Your task to perform on an android device: turn on bluetooth scan Image 0: 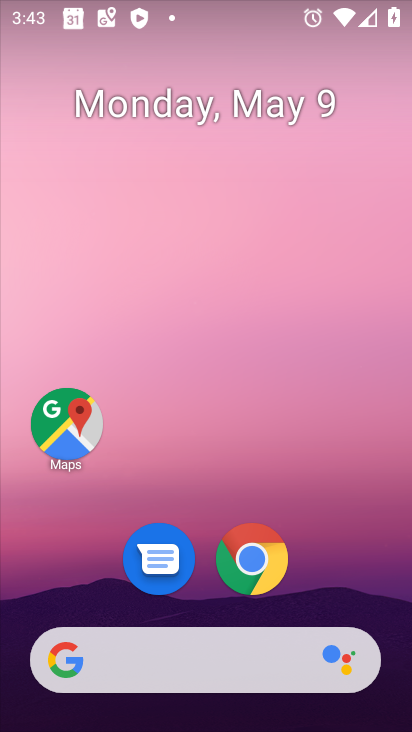
Step 0: drag from (209, 726) to (211, 151)
Your task to perform on an android device: turn on bluetooth scan Image 1: 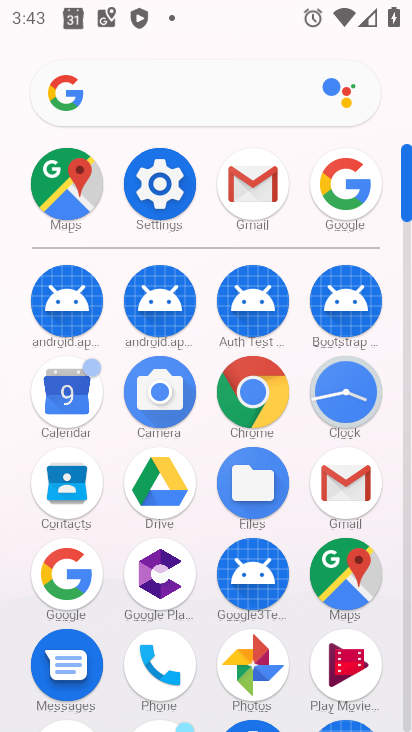
Step 1: click (163, 181)
Your task to perform on an android device: turn on bluetooth scan Image 2: 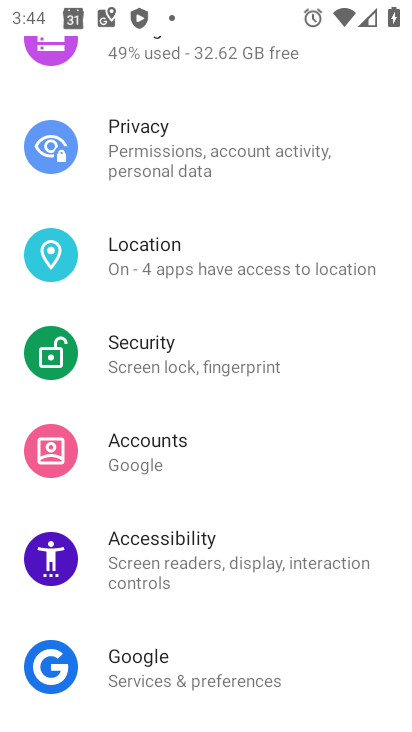
Step 2: click (179, 263)
Your task to perform on an android device: turn on bluetooth scan Image 3: 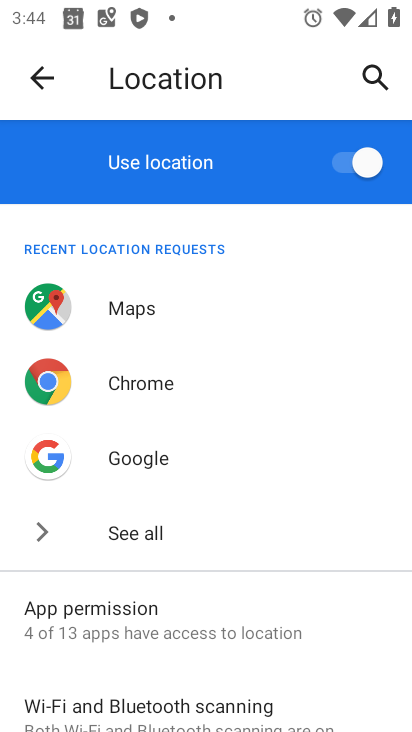
Step 3: drag from (223, 664) to (208, 370)
Your task to perform on an android device: turn on bluetooth scan Image 4: 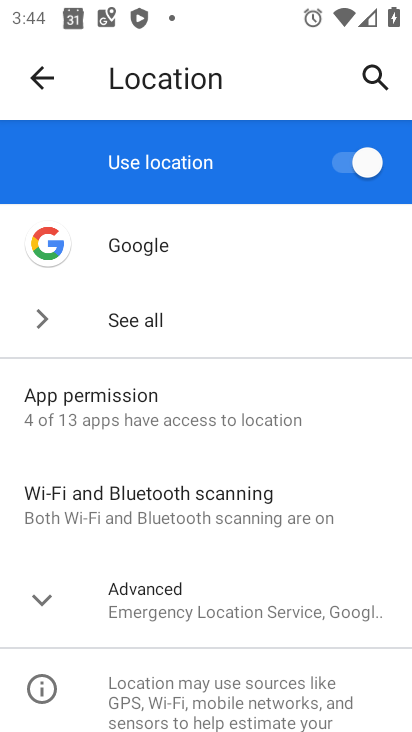
Step 4: click (184, 521)
Your task to perform on an android device: turn on bluetooth scan Image 5: 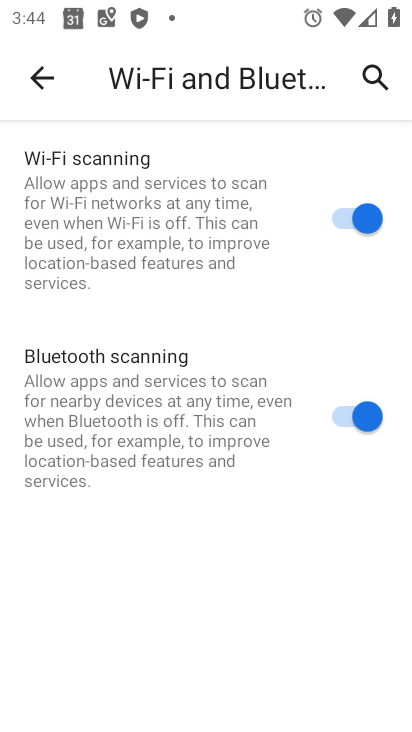
Step 5: task complete